Your task to perform on an android device: turn on sleep mode Image 0: 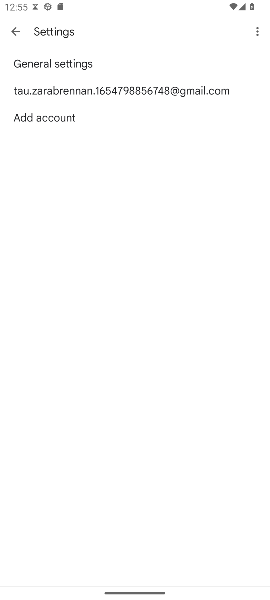
Step 0: press home button
Your task to perform on an android device: turn on sleep mode Image 1: 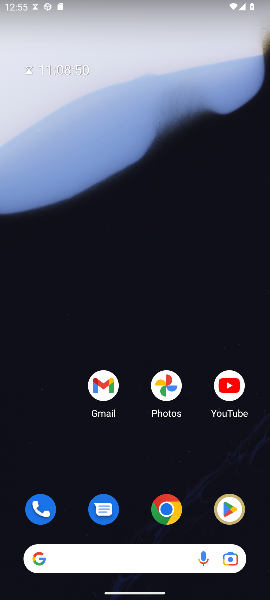
Step 1: drag from (147, 489) to (195, 73)
Your task to perform on an android device: turn on sleep mode Image 2: 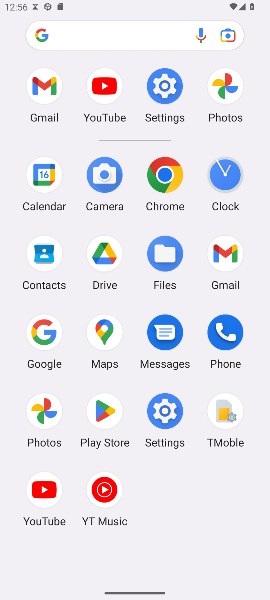
Step 2: click (163, 79)
Your task to perform on an android device: turn on sleep mode Image 3: 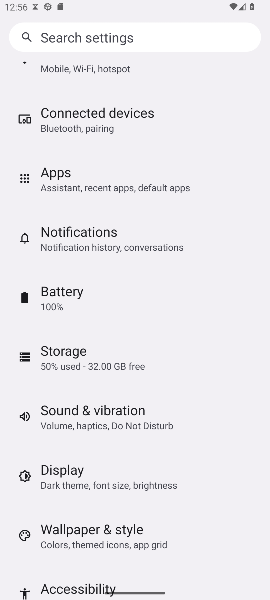
Step 3: click (87, 483)
Your task to perform on an android device: turn on sleep mode Image 4: 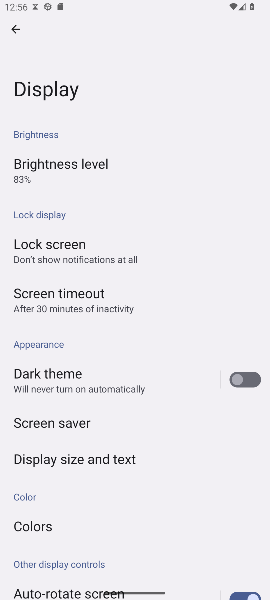
Step 4: task complete